Your task to perform on an android device: check android version Image 0: 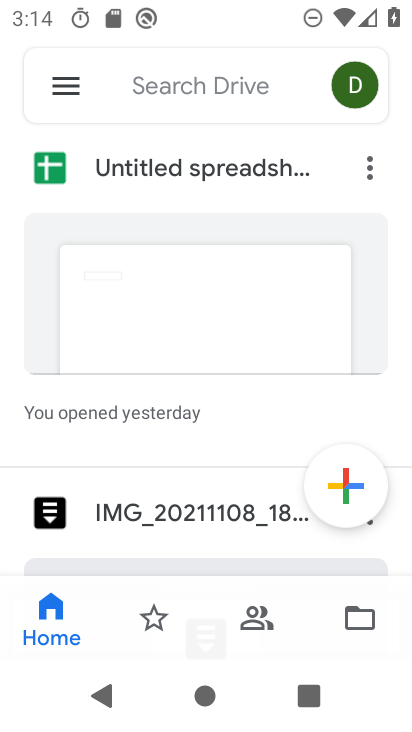
Step 0: press home button
Your task to perform on an android device: check android version Image 1: 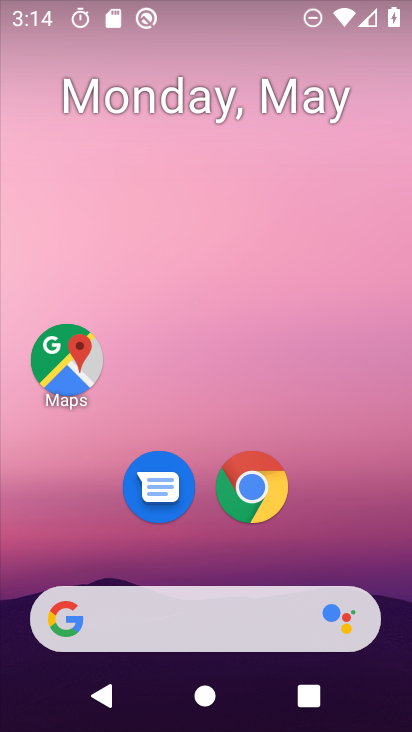
Step 1: drag from (199, 545) to (293, 114)
Your task to perform on an android device: check android version Image 2: 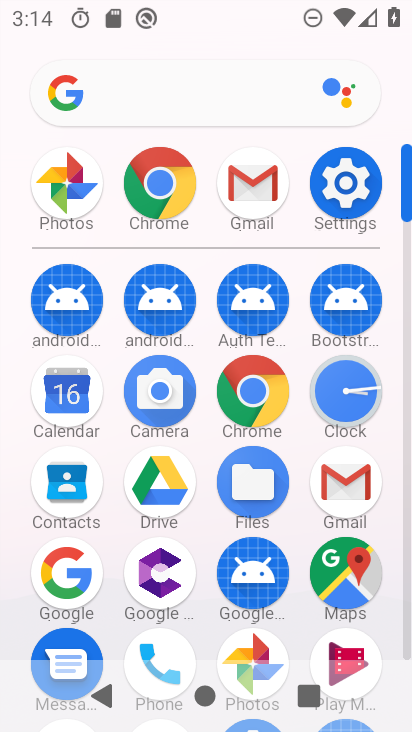
Step 2: click (340, 179)
Your task to perform on an android device: check android version Image 3: 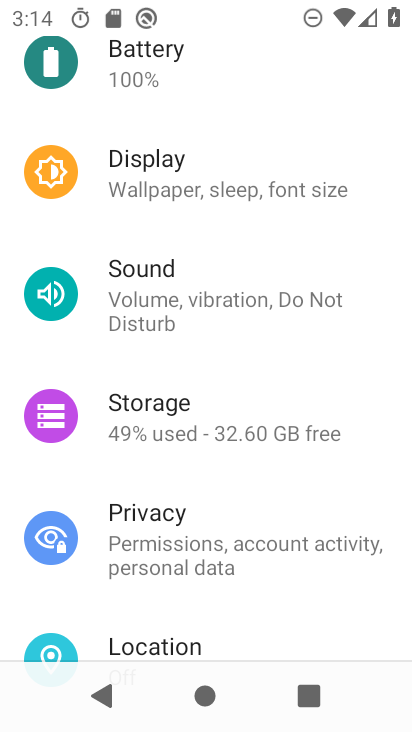
Step 3: drag from (207, 177) to (228, 115)
Your task to perform on an android device: check android version Image 4: 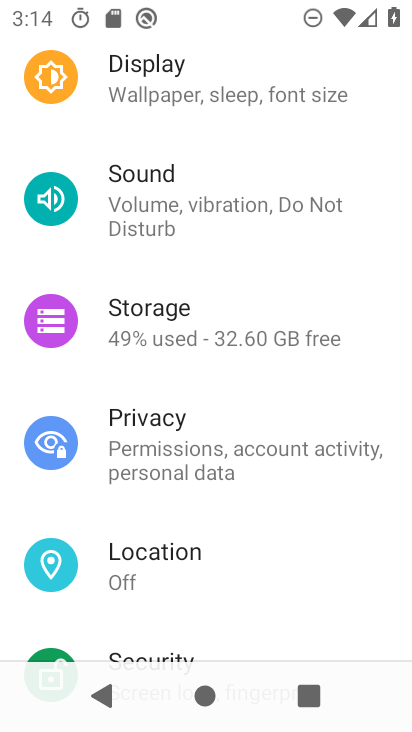
Step 4: drag from (203, 529) to (265, 156)
Your task to perform on an android device: check android version Image 5: 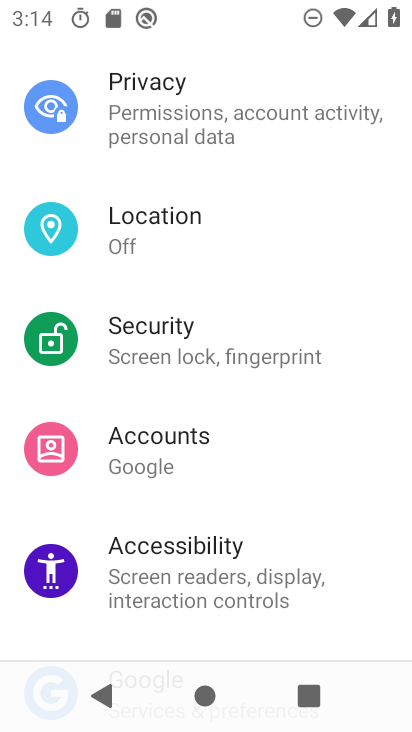
Step 5: drag from (241, 574) to (312, 114)
Your task to perform on an android device: check android version Image 6: 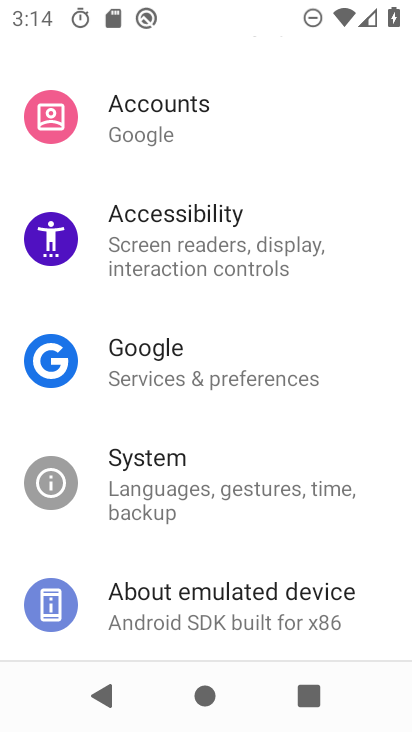
Step 6: drag from (219, 548) to (260, 101)
Your task to perform on an android device: check android version Image 7: 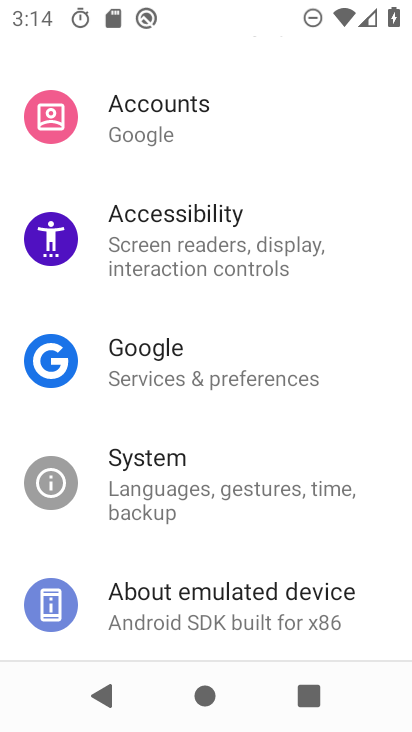
Step 7: click (137, 609)
Your task to perform on an android device: check android version Image 8: 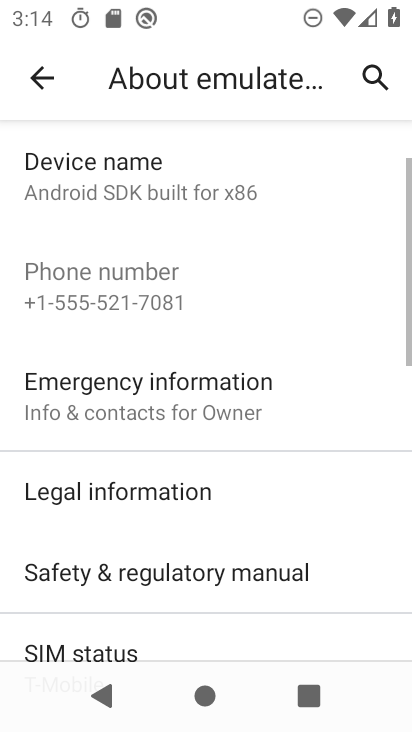
Step 8: drag from (211, 488) to (230, 312)
Your task to perform on an android device: check android version Image 9: 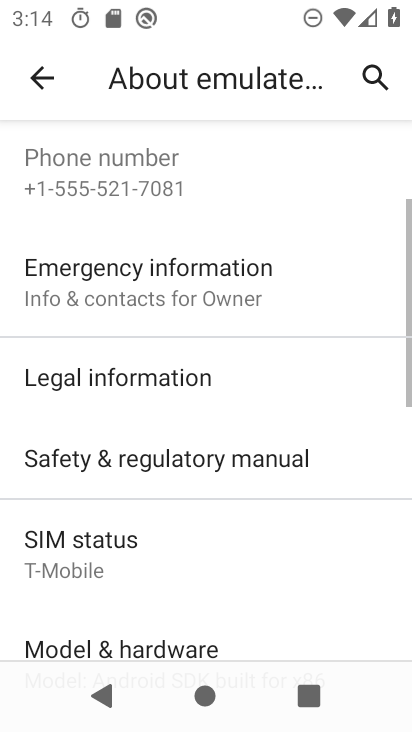
Step 9: click (233, 368)
Your task to perform on an android device: check android version Image 10: 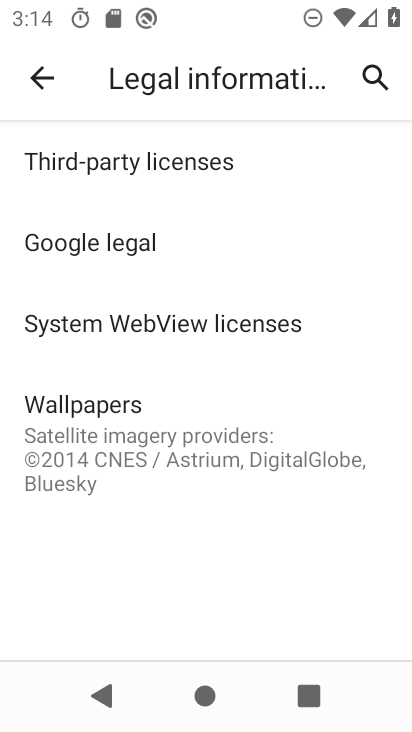
Step 10: click (54, 77)
Your task to perform on an android device: check android version Image 11: 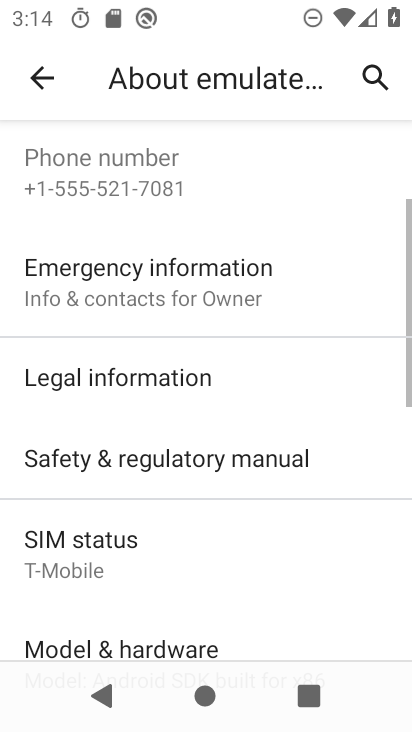
Step 11: drag from (203, 471) to (251, 126)
Your task to perform on an android device: check android version Image 12: 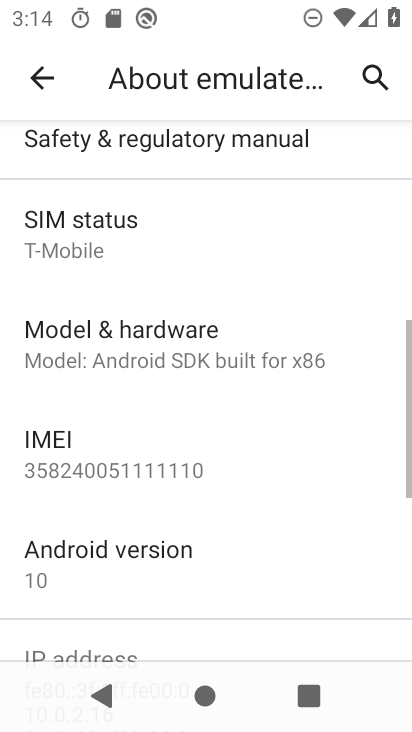
Step 12: click (128, 562)
Your task to perform on an android device: check android version Image 13: 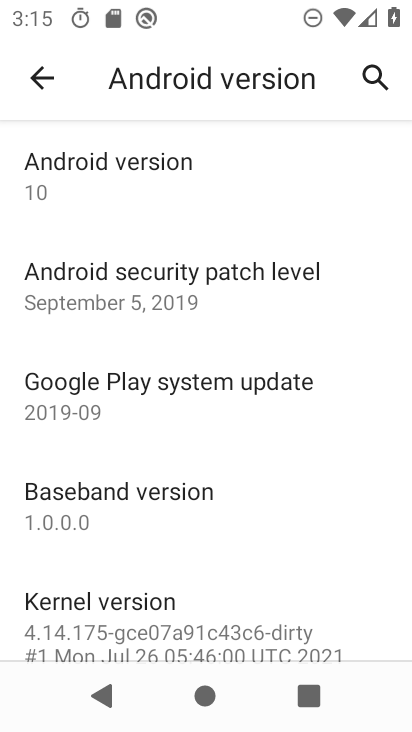
Step 13: task complete